Your task to perform on an android device: Go to Yahoo.com Image 0: 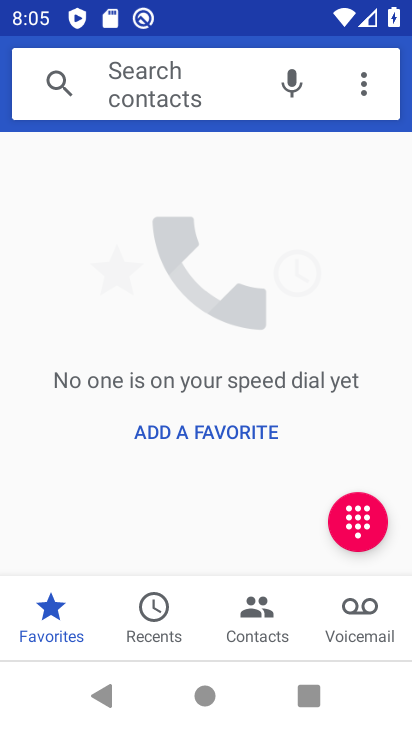
Step 0: press home button
Your task to perform on an android device: Go to Yahoo.com Image 1: 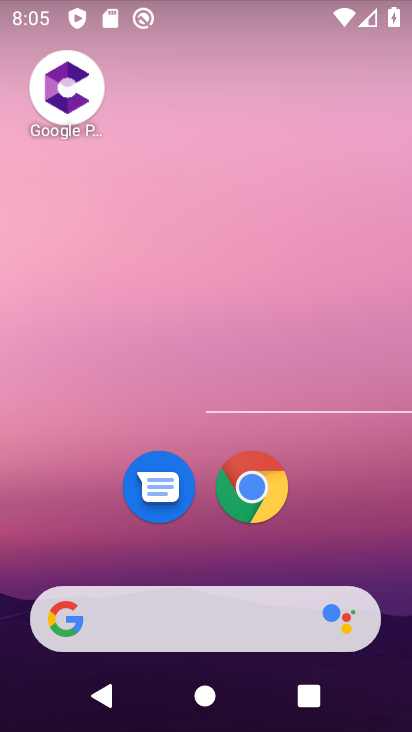
Step 1: click (264, 499)
Your task to perform on an android device: Go to Yahoo.com Image 2: 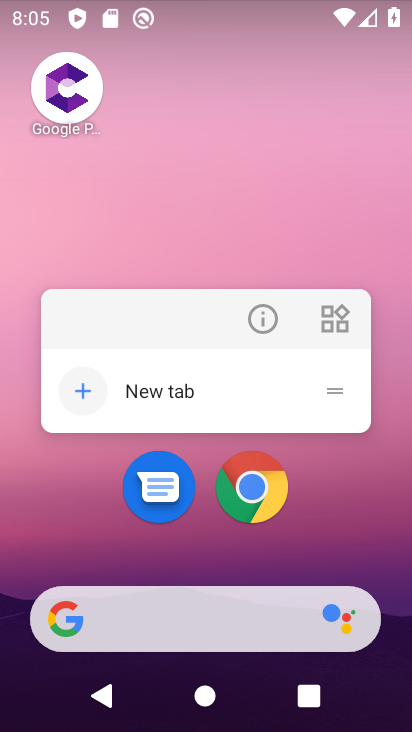
Step 2: click (264, 499)
Your task to perform on an android device: Go to Yahoo.com Image 3: 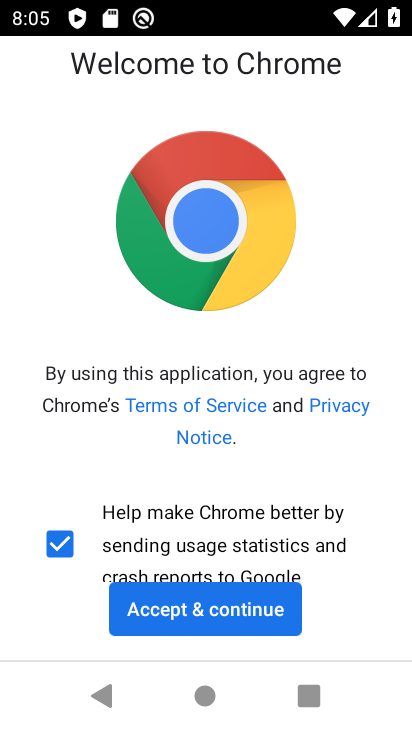
Step 3: click (252, 596)
Your task to perform on an android device: Go to Yahoo.com Image 4: 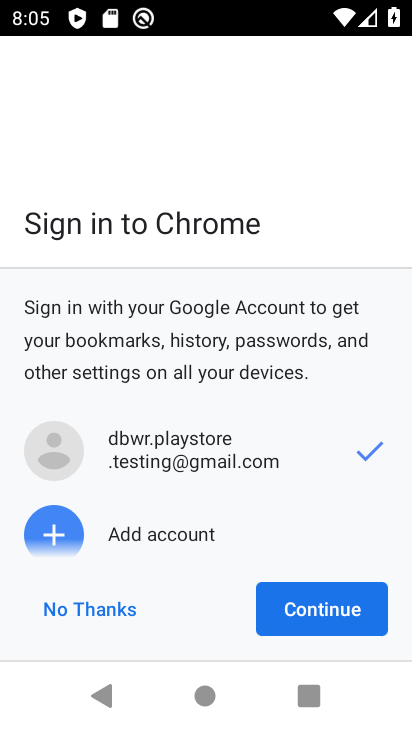
Step 4: click (272, 617)
Your task to perform on an android device: Go to Yahoo.com Image 5: 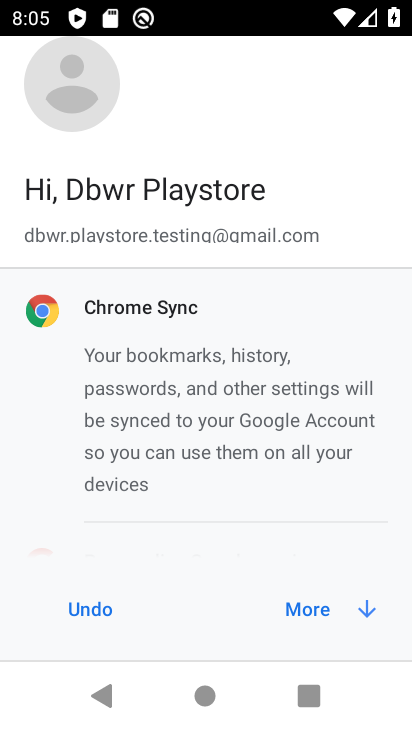
Step 5: click (295, 600)
Your task to perform on an android device: Go to Yahoo.com Image 6: 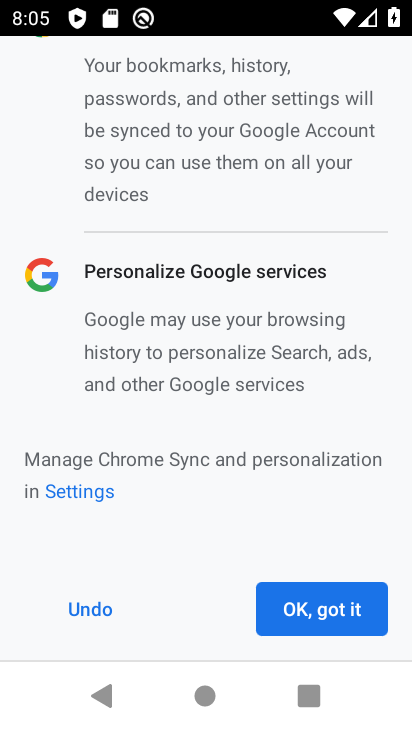
Step 6: click (294, 601)
Your task to perform on an android device: Go to Yahoo.com Image 7: 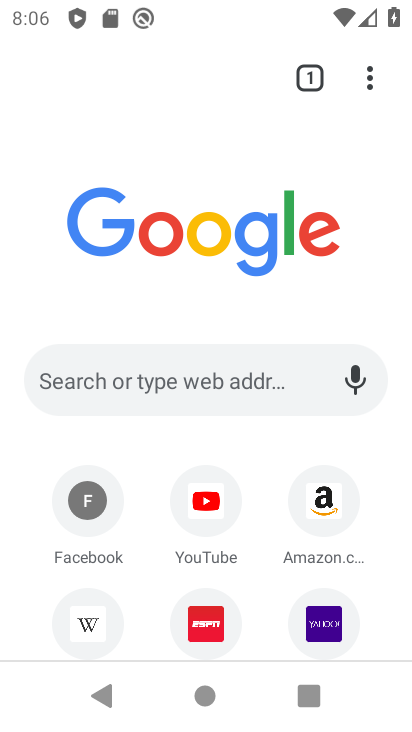
Step 7: click (324, 613)
Your task to perform on an android device: Go to Yahoo.com Image 8: 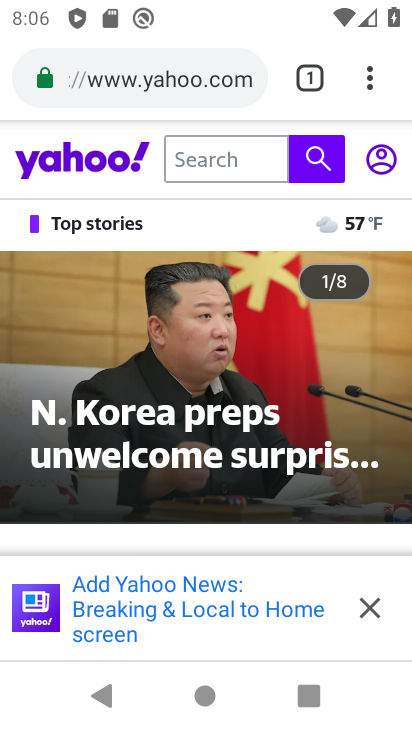
Step 8: task complete